Your task to perform on an android device: Open sound settings Image 0: 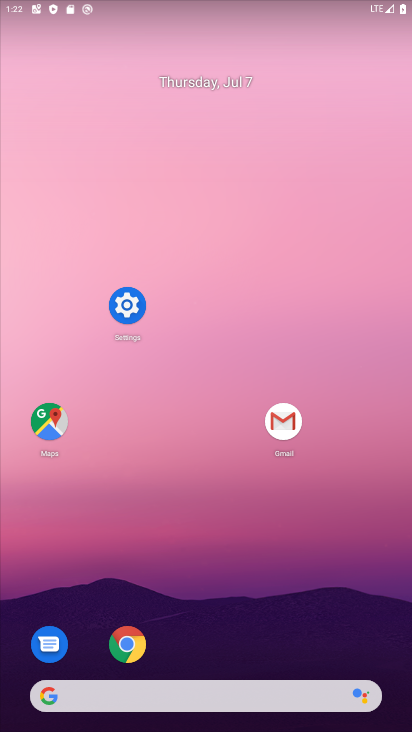
Step 0: drag from (395, 703) to (316, 160)
Your task to perform on an android device: Open sound settings Image 1: 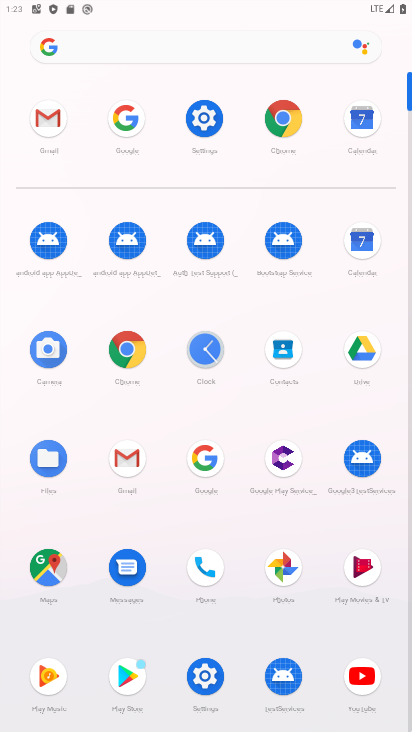
Step 1: click (198, 666)
Your task to perform on an android device: Open sound settings Image 2: 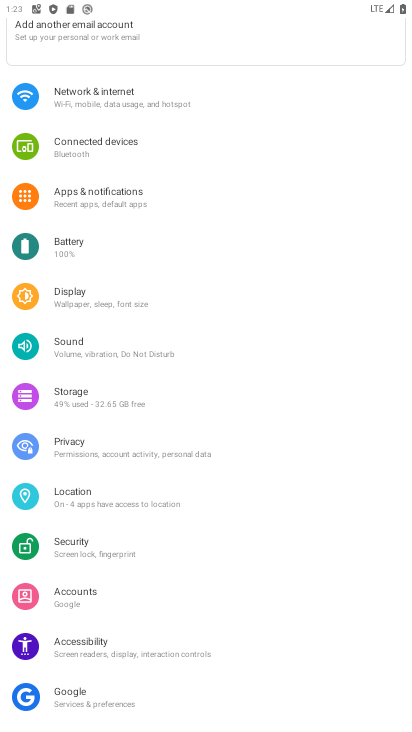
Step 2: click (69, 347)
Your task to perform on an android device: Open sound settings Image 3: 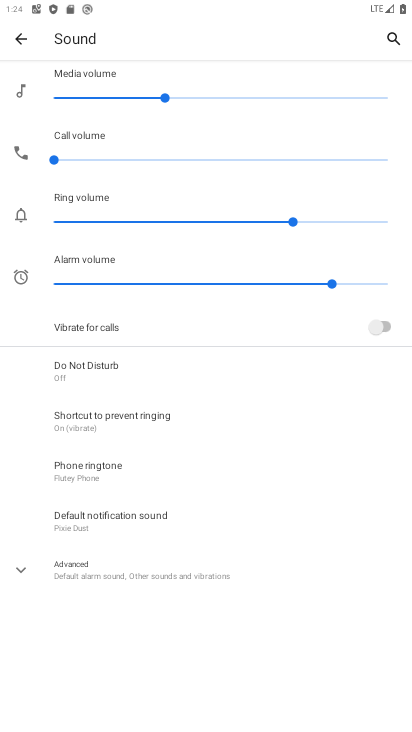
Step 3: task complete